Your task to perform on an android device: What's the weather? Image 0: 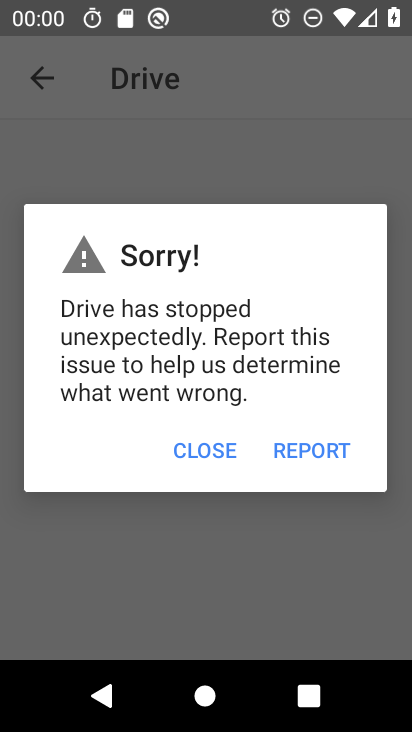
Step 0: press home button
Your task to perform on an android device: What's the weather? Image 1: 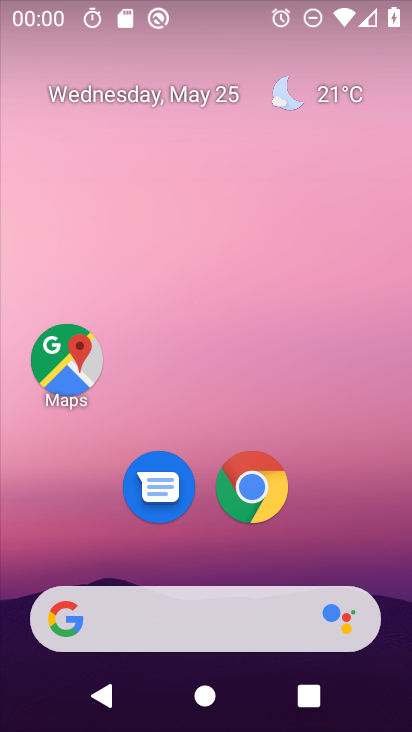
Step 1: click (341, 97)
Your task to perform on an android device: What's the weather? Image 2: 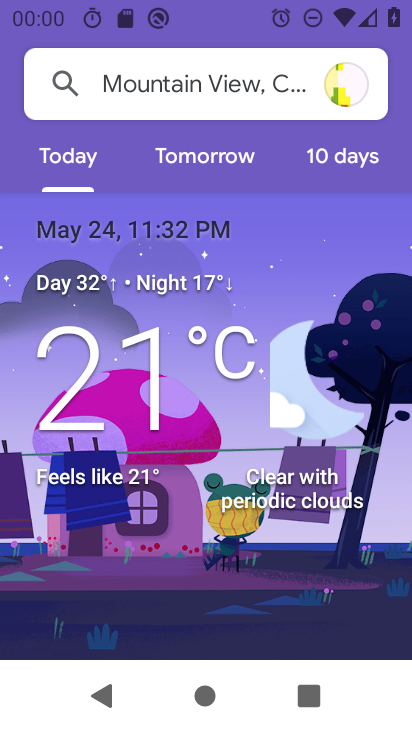
Step 2: task complete